Your task to perform on an android device: change timer sound Image 0: 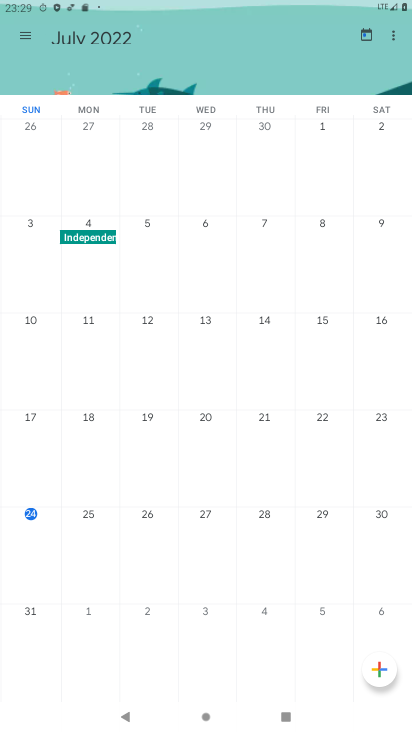
Step 0: press back button
Your task to perform on an android device: change timer sound Image 1: 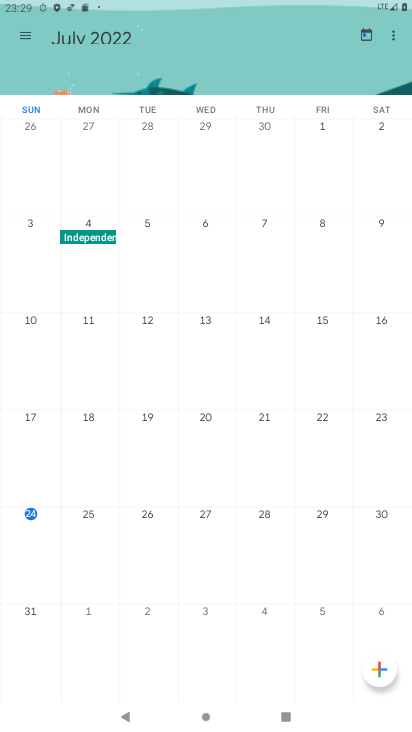
Step 1: press back button
Your task to perform on an android device: change timer sound Image 2: 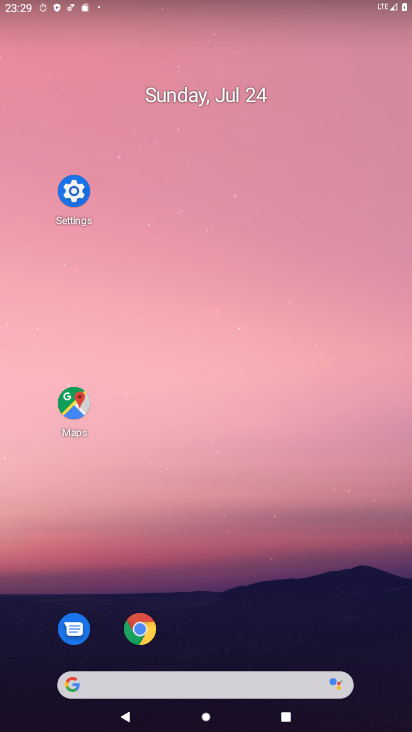
Step 2: press home button
Your task to perform on an android device: change timer sound Image 3: 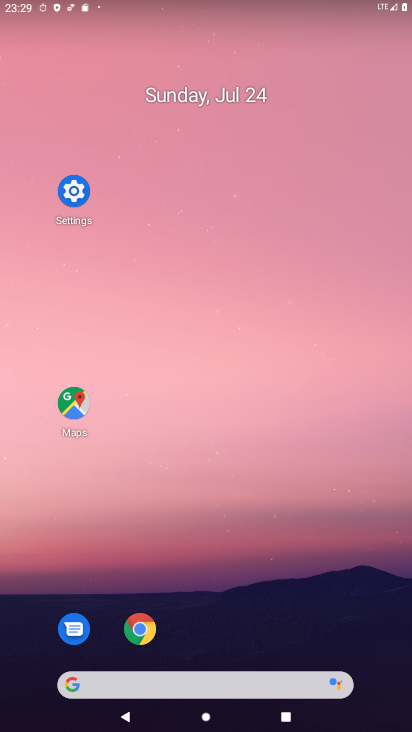
Step 3: drag from (209, 625) to (201, 39)
Your task to perform on an android device: change timer sound Image 4: 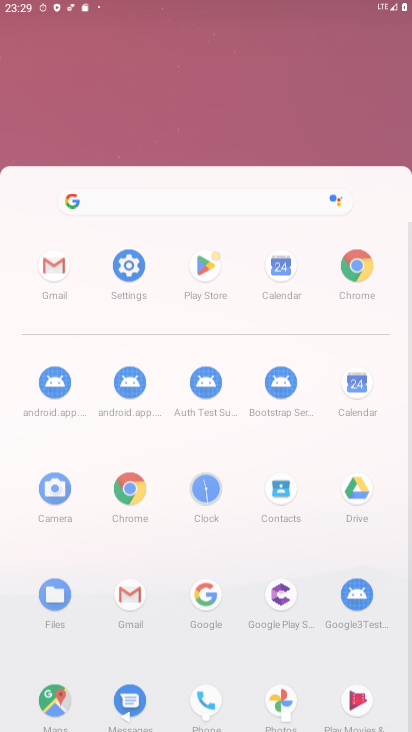
Step 4: drag from (224, 417) to (184, 34)
Your task to perform on an android device: change timer sound Image 5: 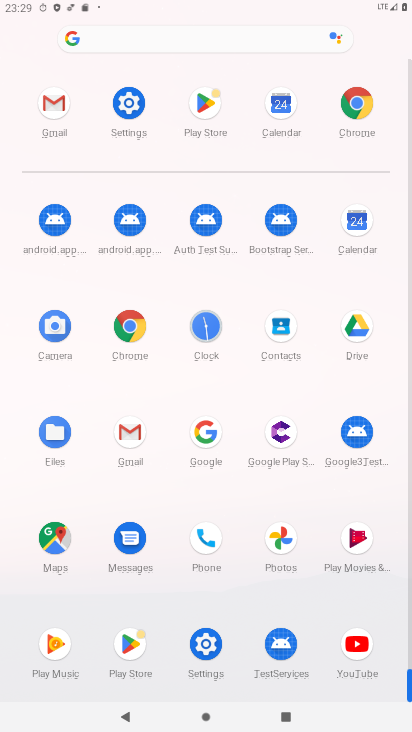
Step 5: drag from (208, 717) to (156, 53)
Your task to perform on an android device: change timer sound Image 6: 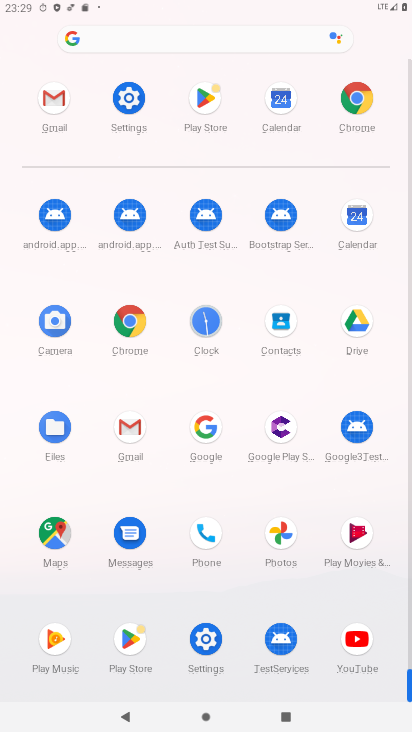
Step 6: click (121, 103)
Your task to perform on an android device: change timer sound Image 7: 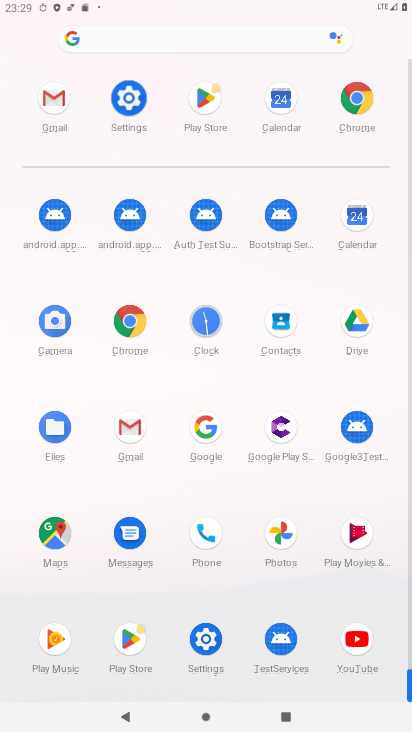
Step 7: click (129, 105)
Your task to perform on an android device: change timer sound Image 8: 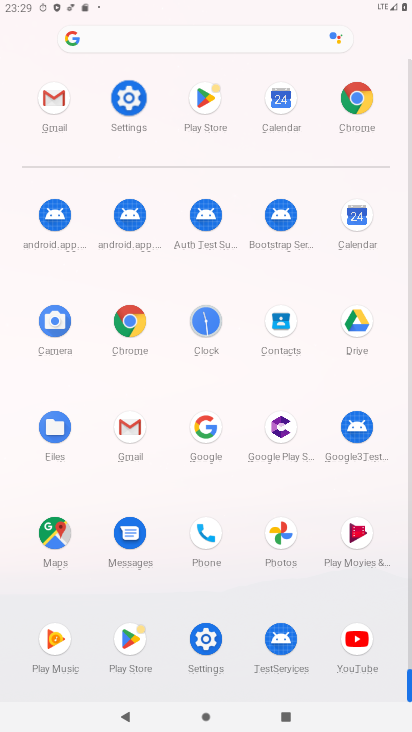
Step 8: click (133, 105)
Your task to perform on an android device: change timer sound Image 9: 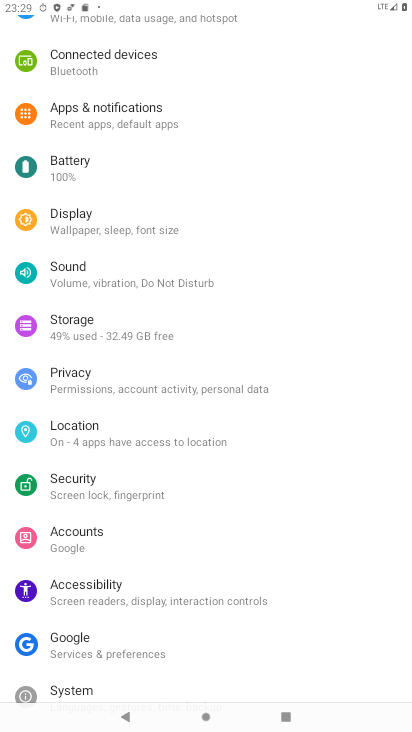
Step 9: press back button
Your task to perform on an android device: change timer sound Image 10: 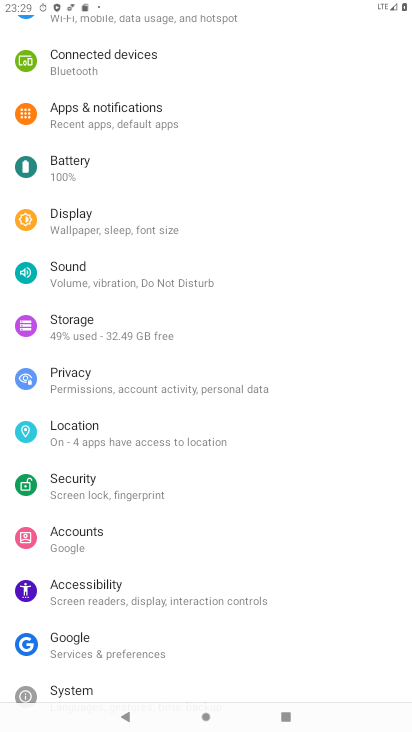
Step 10: press back button
Your task to perform on an android device: change timer sound Image 11: 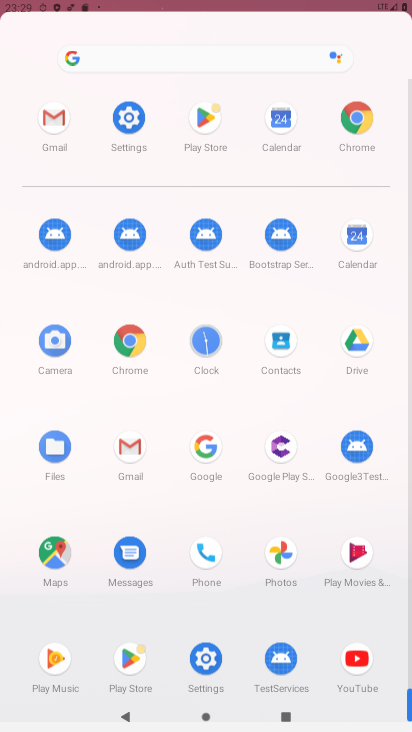
Step 11: press back button
Your task to perform on an android device: change timer sound Image 12: 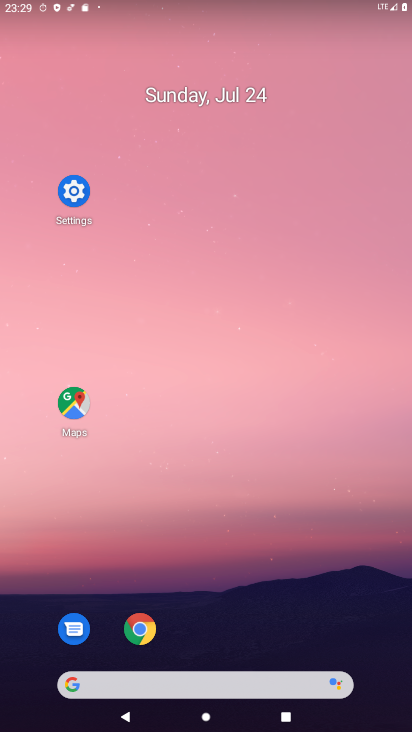
Step 12: drag from (225, 658) to (185, 65)
Your task to perform on an android device: change timer sound Image 13: 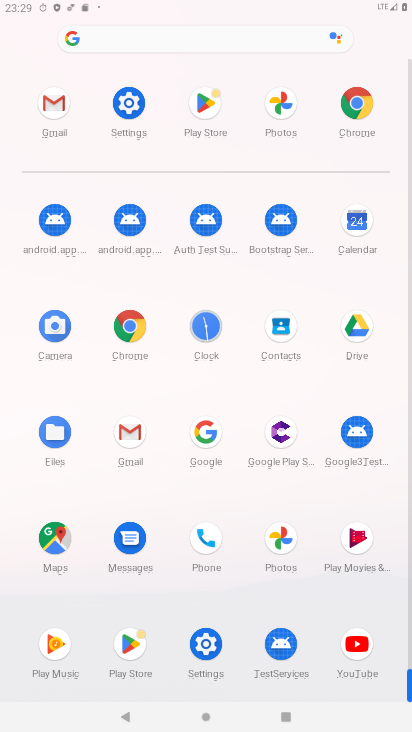
Step 13: drag from (257, 503) to (263, 15)
Your task to perform on an android device: change timer sound Image 14: 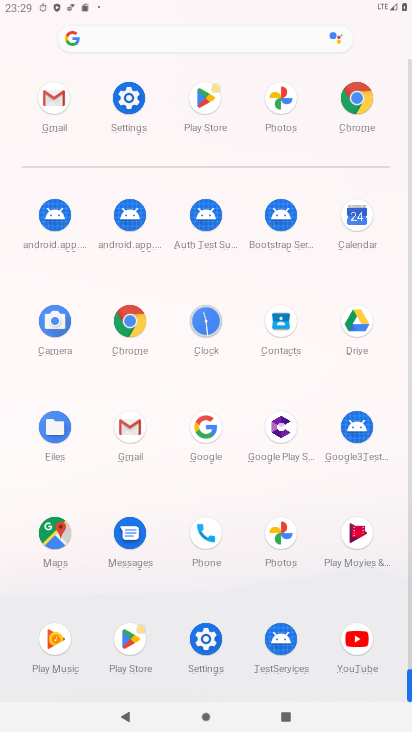
Step 14: click (204, 320)
Your task to perform on an android device: change timer sound Image 15: 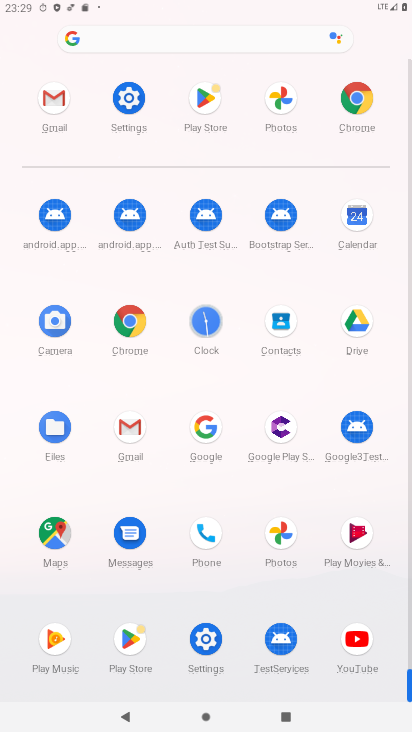
Step 15: click (206, 321)
Your task to perform on an android device: change timer sound Image 16: 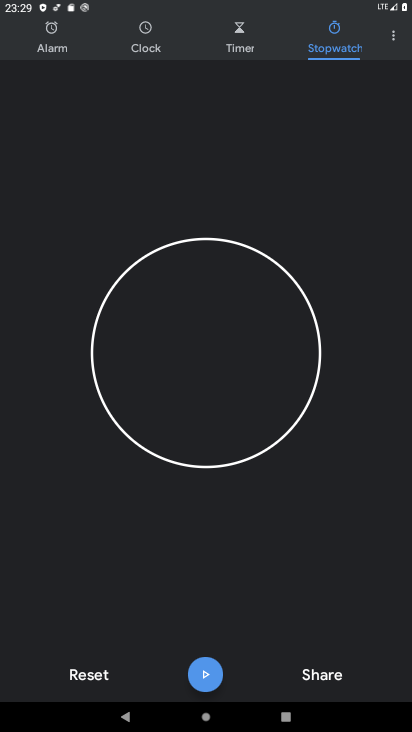
Step 16: click (391, 32)
Your task to perform on an android device: change timer sound Image 17: 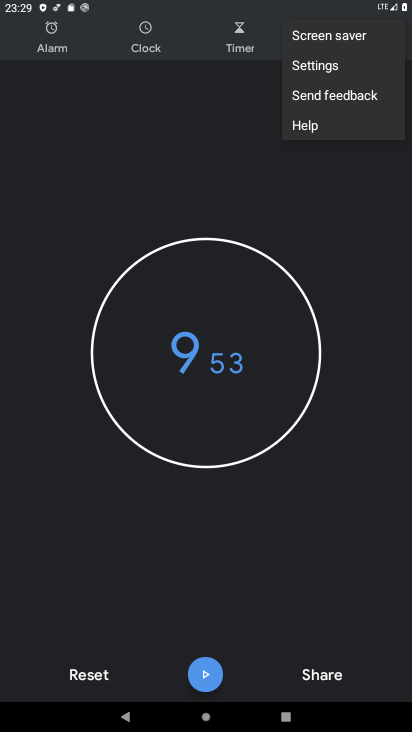
Step 17: click (318, 55)
Your task to perform on an android device: change timer sound Image 18: 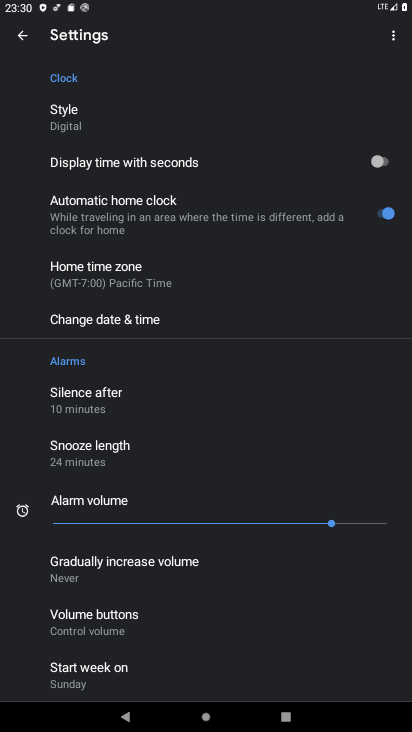
Step 18: drag from (91, 622) to (218, 29)
Your task to perform on an android device: change timer sound Image 19: 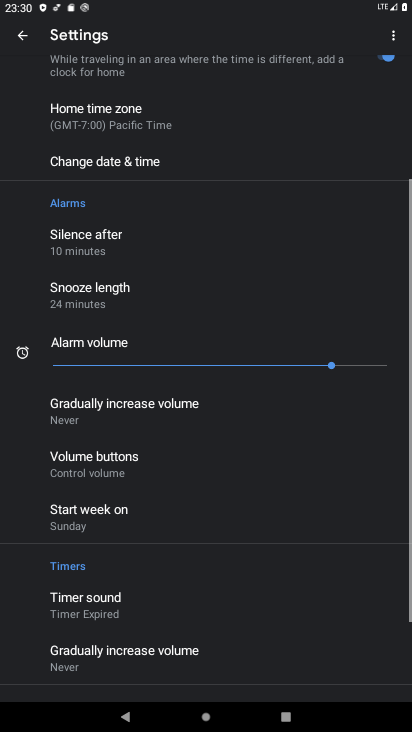
Step 19: drag from (200, 137) to (200, 20)
Your task to perform on an android device: change timer sound Image 20: 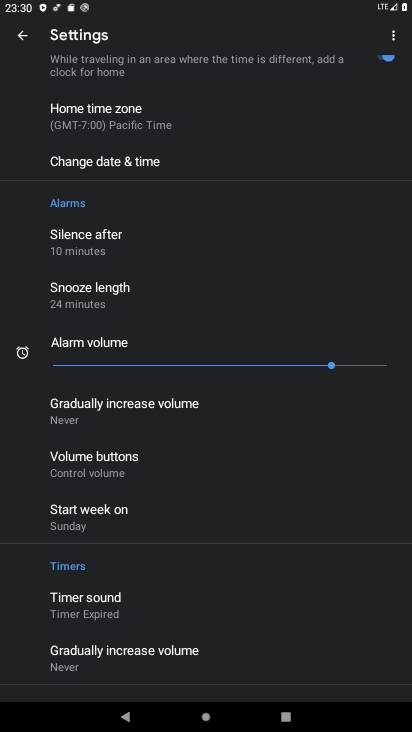
Step 20: drag from (115, 407) to (143, 100)
Your task to perform on an android device: change timer sound Image 21: 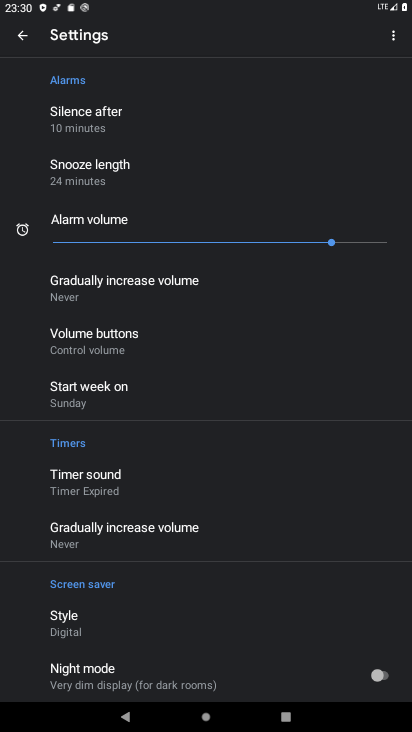
Step 21: click (107, 470)
Your task to perform on an android device: change timer sound Image 22: 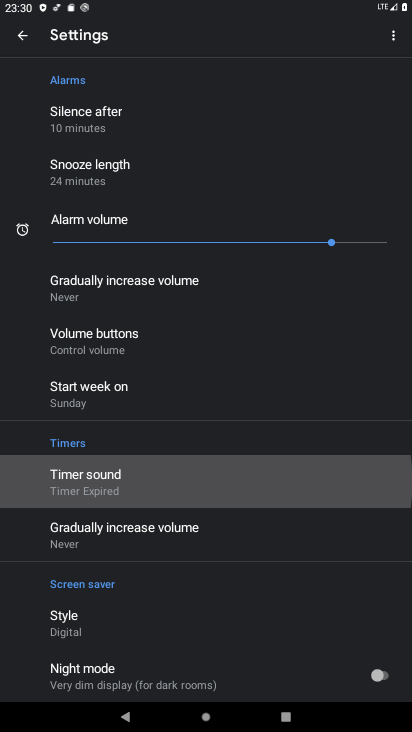
Step 22: click (109, 471)
Your task to perform on an android device: change timer sound Image 23: 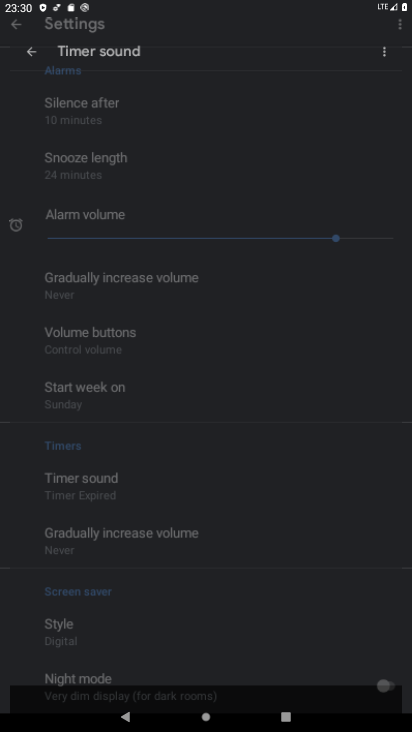
Step 23: click (98, 491)
Your task to perform on an android device: change timer sound Image 24: 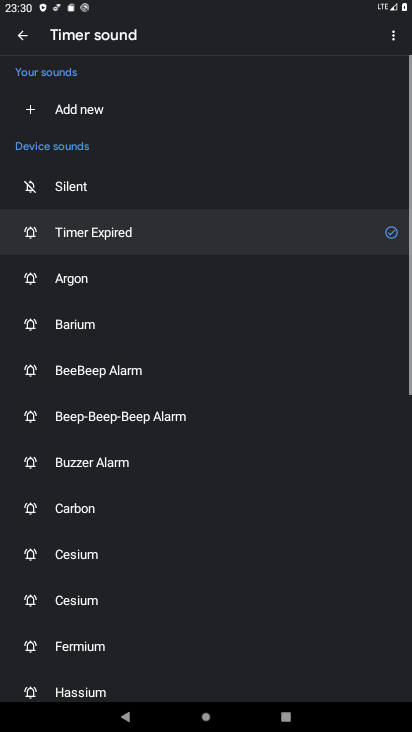
Step 24: click (39, 452)
Your task to perform on an android device: change timer sound Image 25: 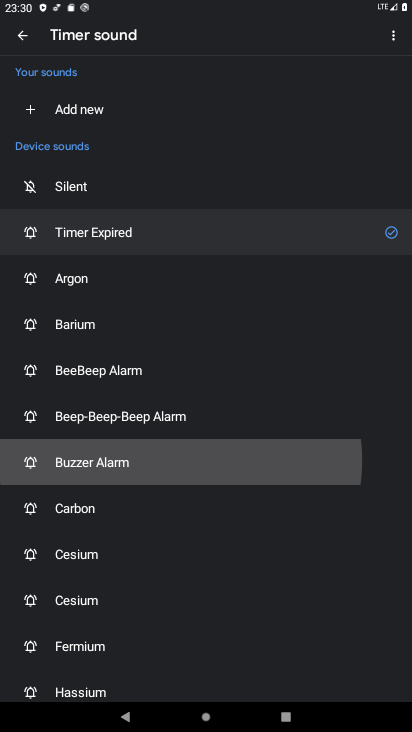
Step 25: click (14, 469)
Your task to perform on an android device: change timer sound Image 26: 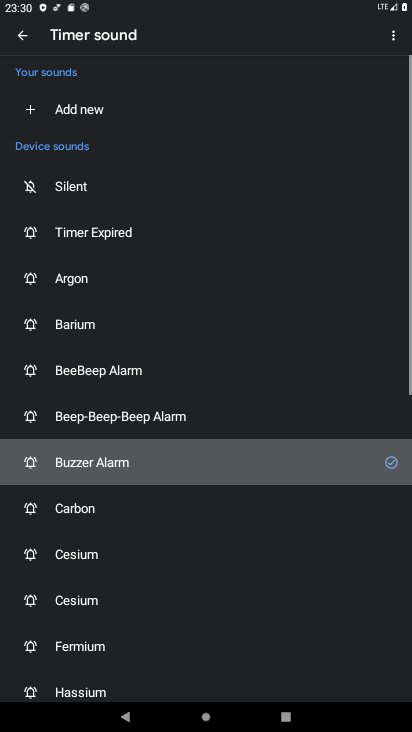
Step 26: click (39, 457)
Your task to perform on an android device: change timer sound Image 27: 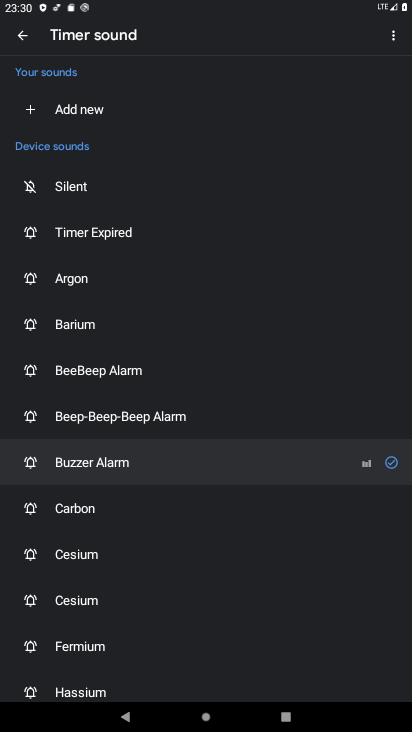
Step 27: task complete